Your task to perform on an android device: see creations saved in the google photos Image 0: 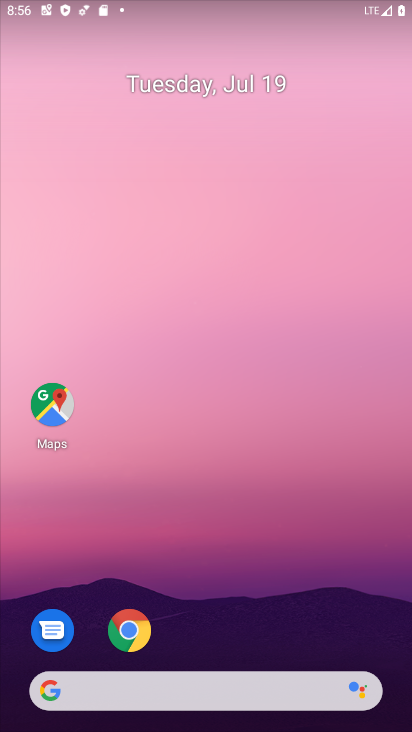
Step 0: drag from (211, 493) to (293, 49)
Your task to perform on an android device: see creations saved in the google photos Image 1: 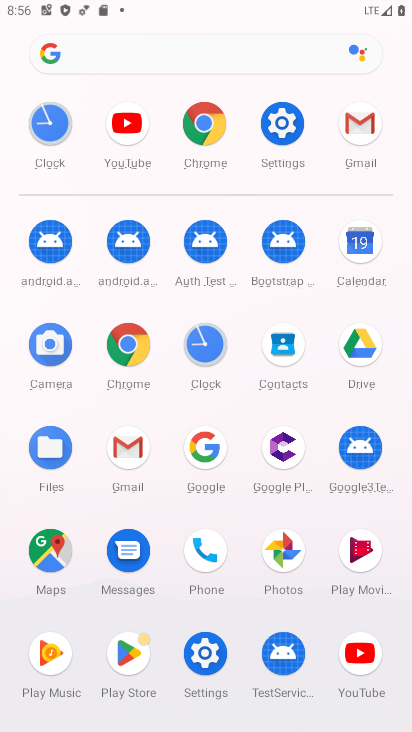
Step 1: click (289, 549)
Your task to perform on an android device: see creations saved in the google photos Image 2: 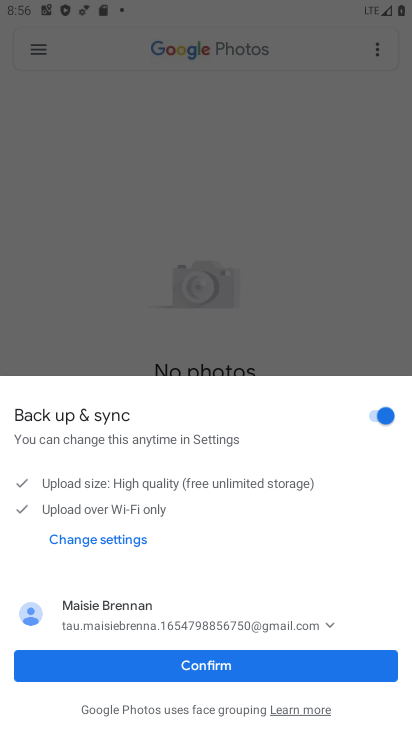
Step 2: click (201, 667)
Your task to perform on an android device: see creations saved in the google photos Image 3: 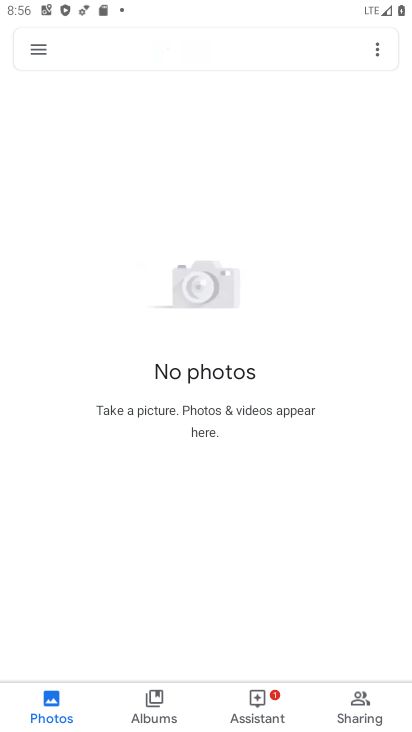
Step 3: click (150, 44)
Your task to perform on an android device: see creations saved in the google photos Image 4: 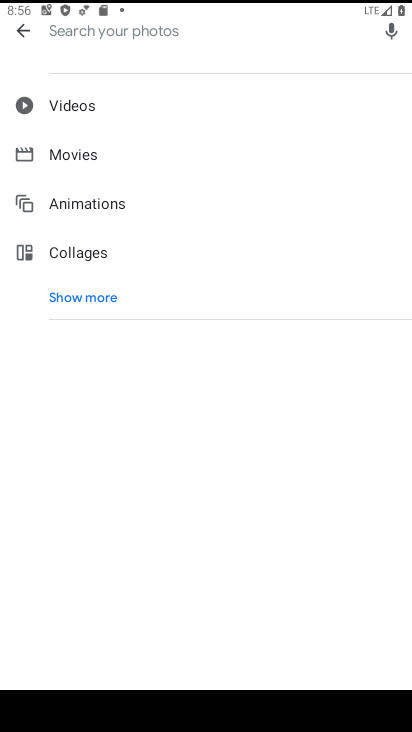
Step 4: click (96, 303)
Your task to perform on an android device: see creations saved in the google photos Image 5: 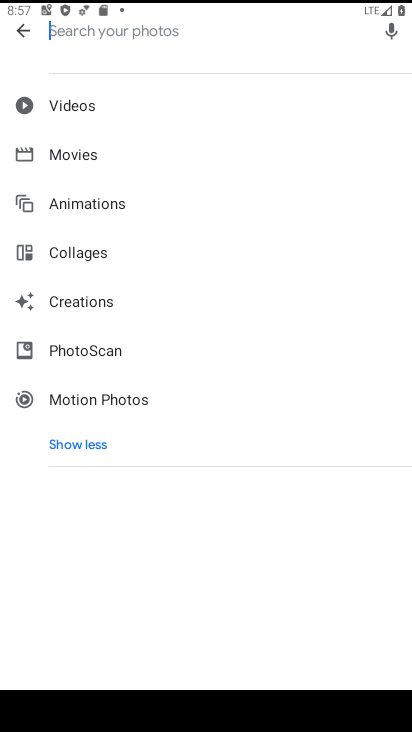
Step 5: click (99, 308)
Your task to perform on an android device: see creations saved in the google photos Image 6: 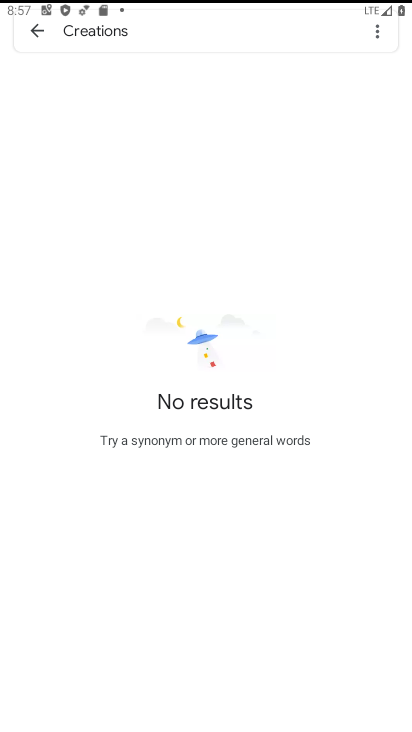
Step 6: task complete